Your task to perform on an android device: Show me popular videos on Youtube Image 0: 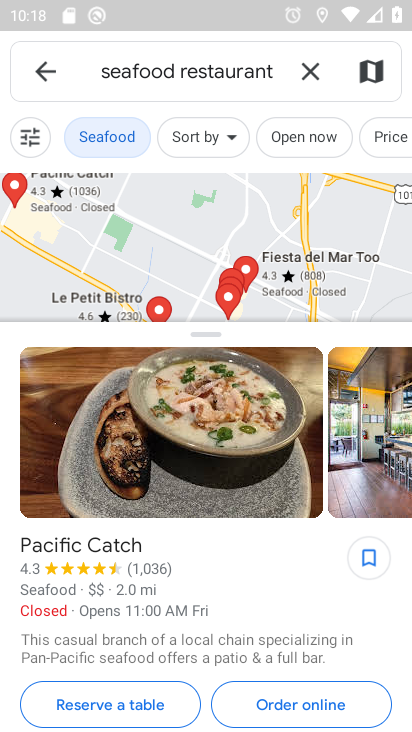
Step 0: press home button
Your task to perform on an android device: Show me popular videos on Youtube Image 1: 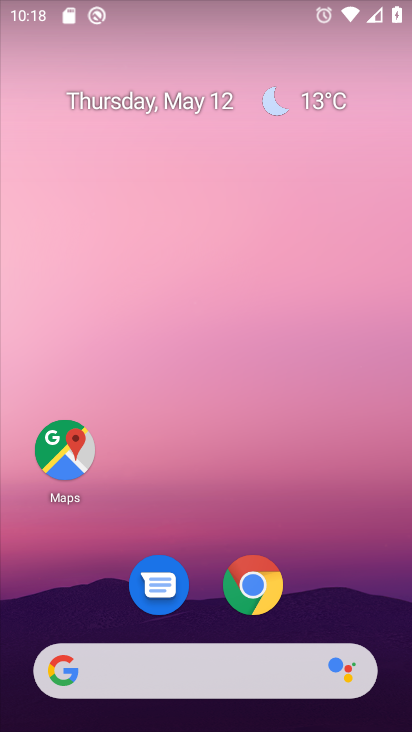
Step 1: drag from (218, 513) to (256, 0)
Your task to perform on an android device: Show me popular videos on Youtube Image 2: 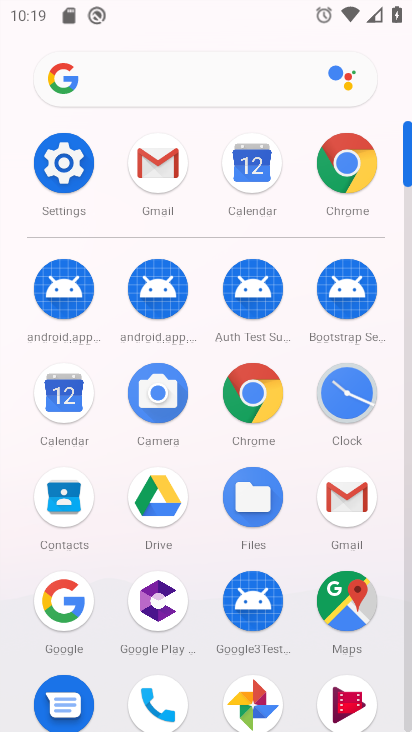
Step 2: drag from (203, 581) to (282, 148)
Your task to perform on an android device: Show me popular videos on Youtube Image 3: 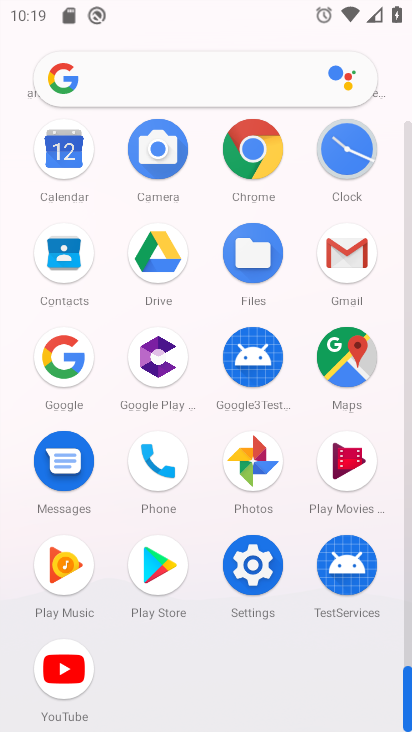
Step 3: click (79, 654)
Your task to perform on an android device: Show me popular videos on Youtube Image 4: 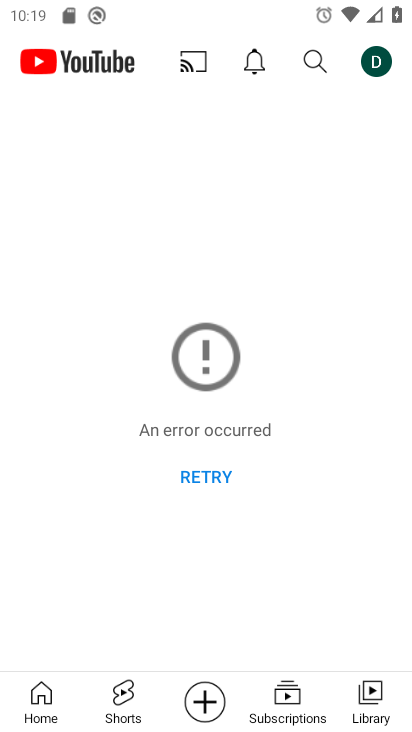
Step 4: click (220, 474)
Your task to perform on an android device: Show me popular videos on Youtube Image 5: 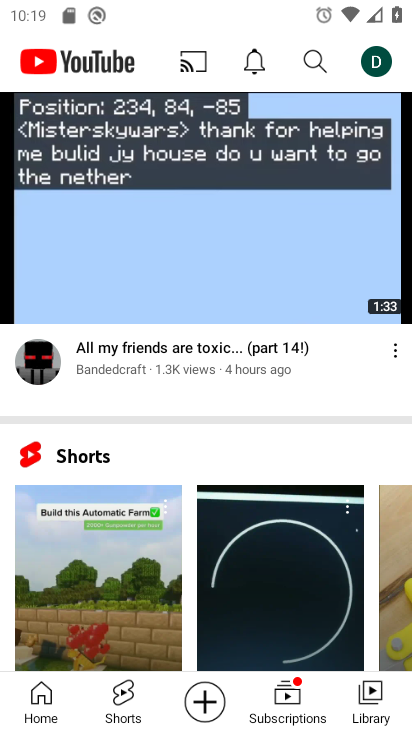
Step 5: click (307, 57)
Your task to perform on an android device: Show me popular videos on Youtube Image 6: 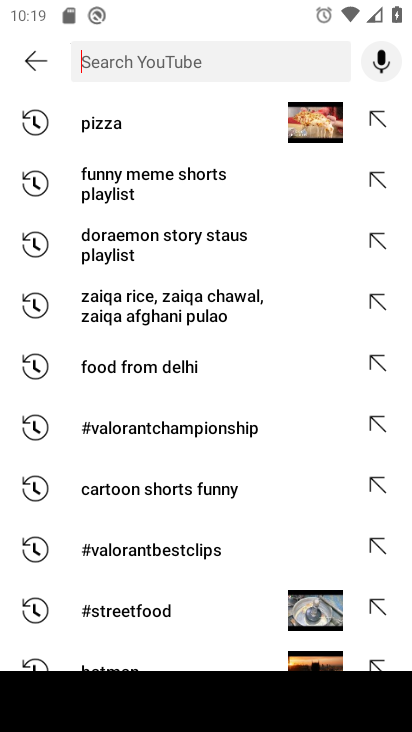
Step 6: type "popular videos"
Your task to perform on an android device: Show me popular videos on Youtube Image 7: 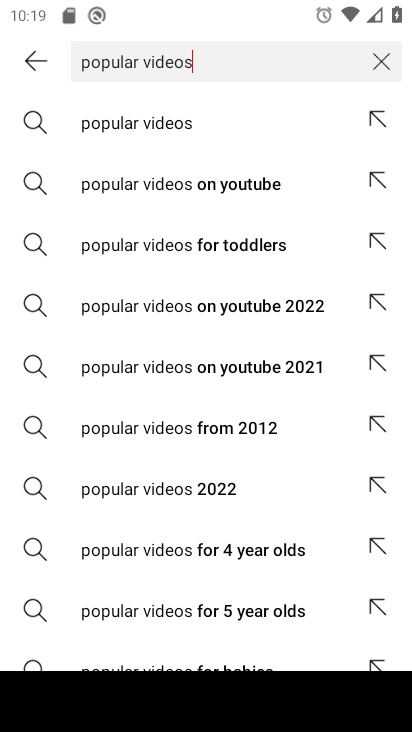
Step 7: click (248, 187)
Your task to perform on an android device: Show me popular videos on Youtube Image 8: 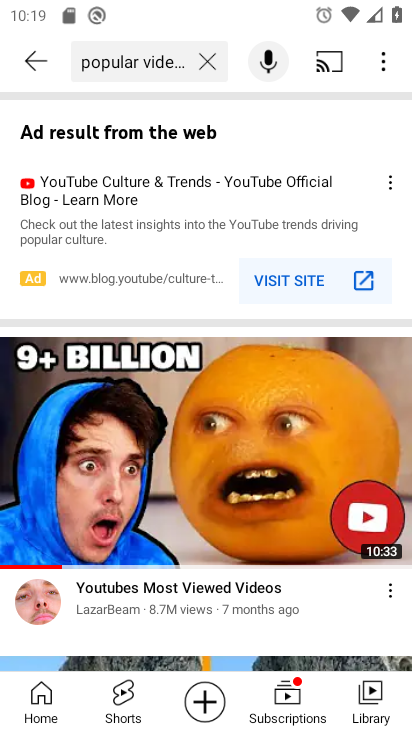
Step 8: task complete